Your task to perform on an android device: Go to wifi settings Image 0: 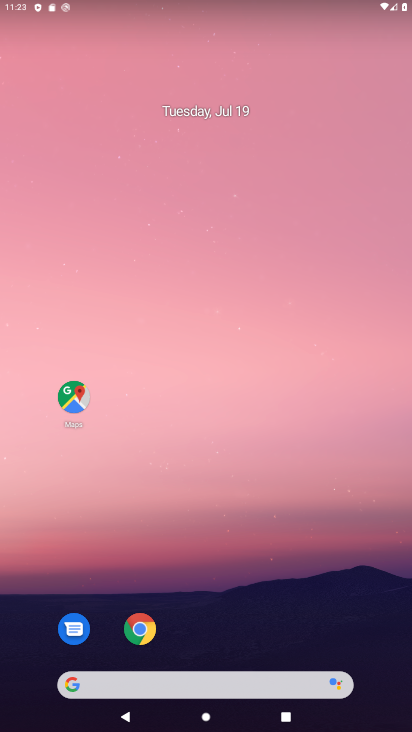
Step 0: drag from (251, 620) to (184, 131)
Your task to perform on an android device: Go to wifi settings Image 1: 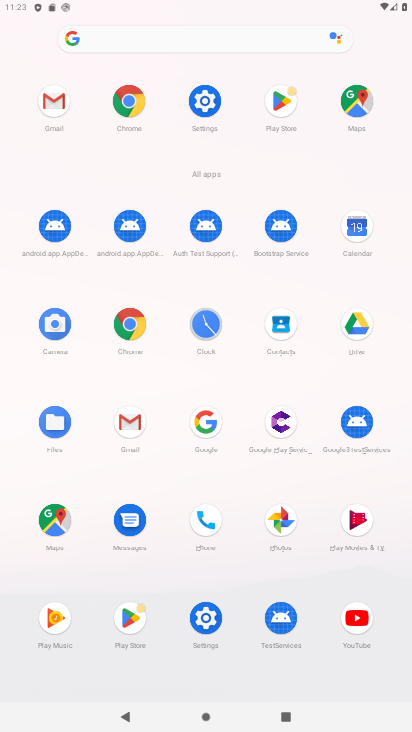
Step 1: click (204, 95)
Your task to perform on an android device: Go to wifi settings Image 2: 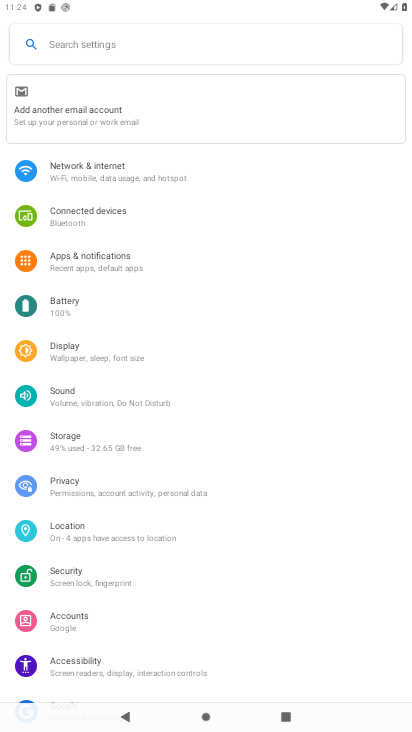
Step 2: click (132, 169)
Your task to perform on an android device: Go to wifi settings Image 3: 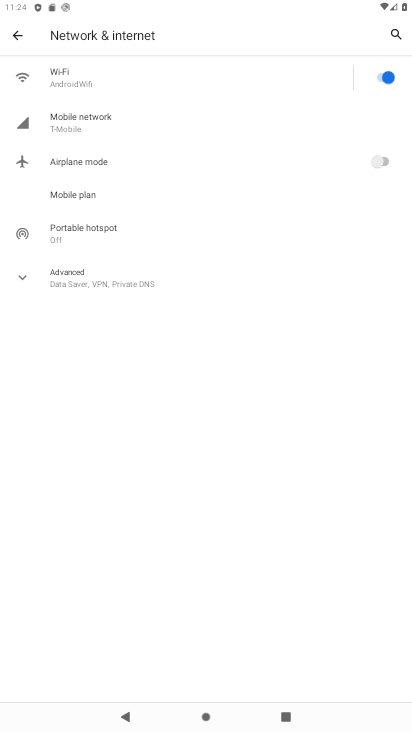
Step 3: click (70, 70)
Your task to perform on an android device: Go to wifi settings Image 4: 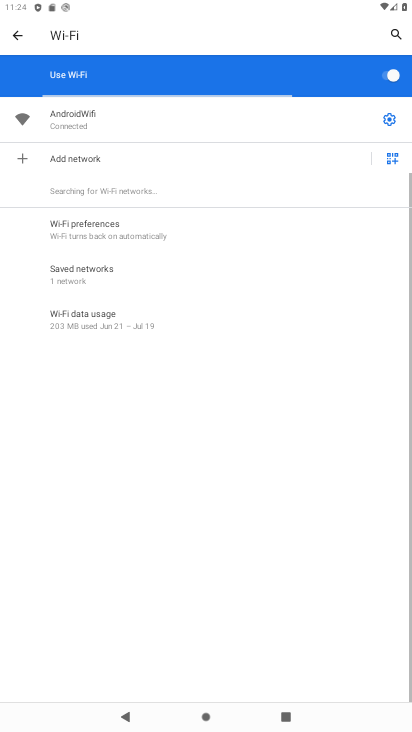
Step 4: task complete